Your task to perform on an android device: Open the stopwatch Image 0: 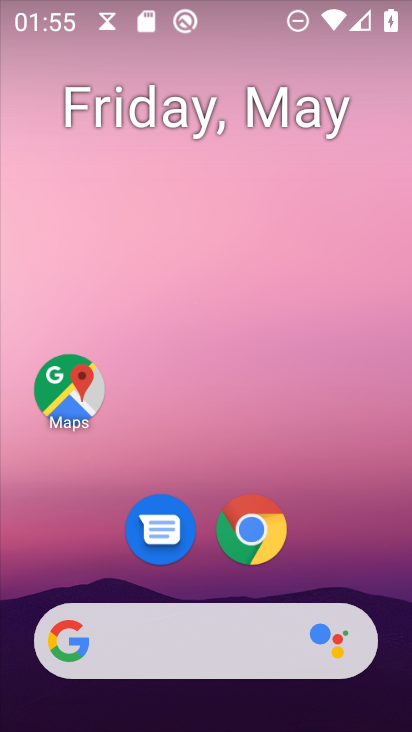
Step 0: drag from (306, 398) to (277, 131)
Your task to perform on an android device: Open the stopwatch Image 1: 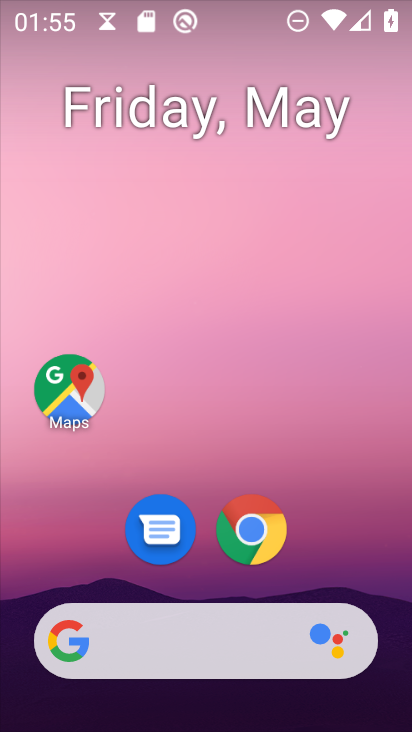
Step 1: drag from (252, 533) to (197, 253)
Your task to perform on an android device: Open the stopwatch Image 2: 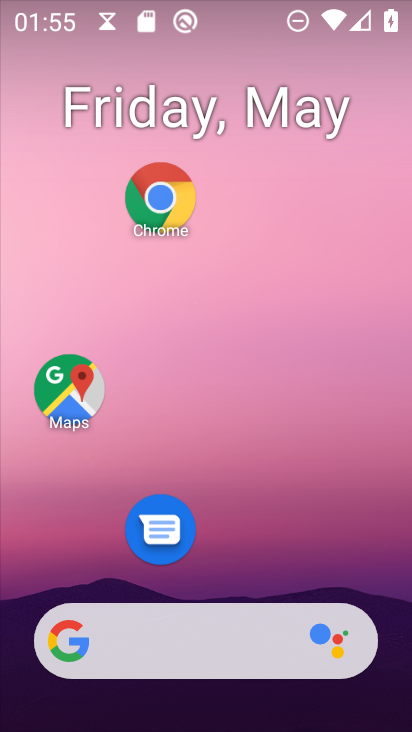
Step 2: drag from (253, 631) to (236, 192)
Your task to perform on an android device: Open the stopwatch Image 3: 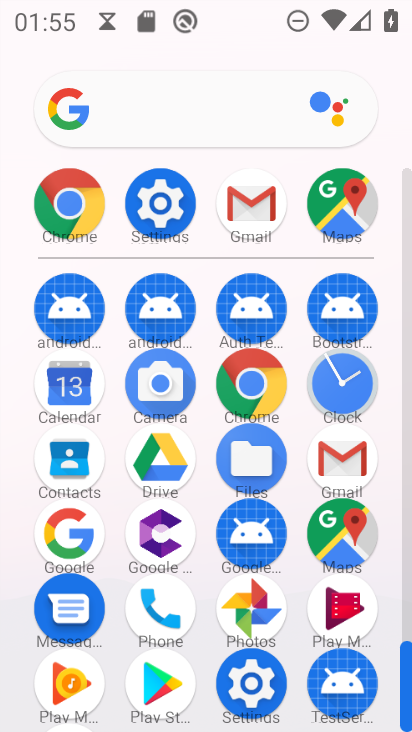
Step 3: click (351, 377)
Your task to perform on an android device: Open the stopwatch Image 4: 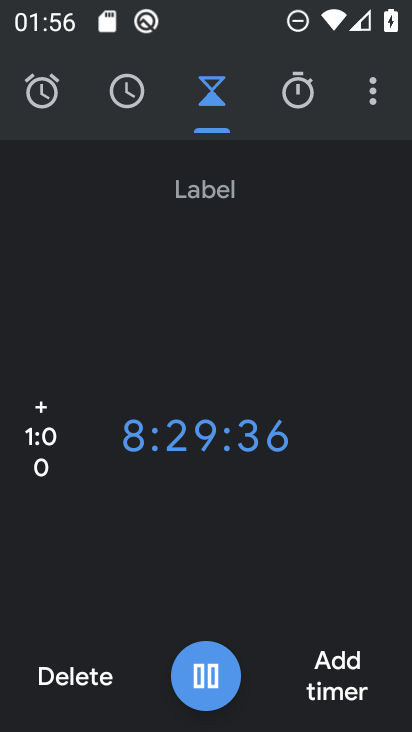
Step 4: click (279, 108)
Your task to perform on an android device: Open the stopwatch Image 5: 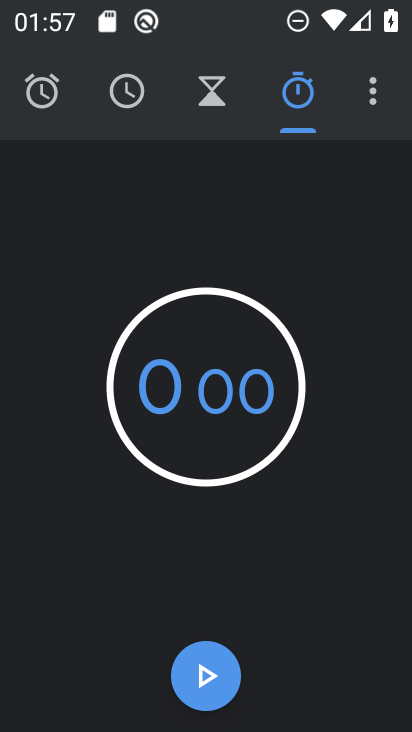
Step 5: task complete